Your task to perform on an android device: change the clock style Image 0: 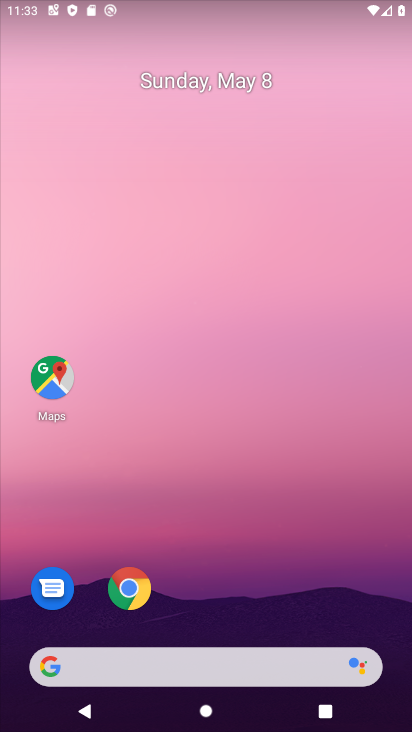
Step 0: drag from (267, 539) to (98, 1)
Your task to perform on an android device: change the clock style Image 1: 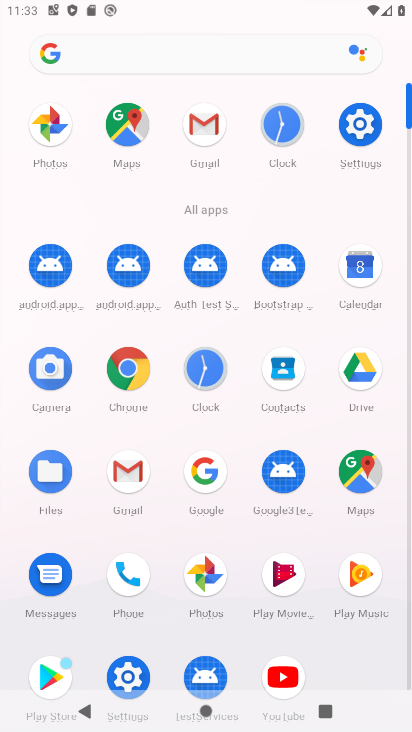
Step 1: click (281, 111)
Your task to perform on an android device: change the clock style Image 2: 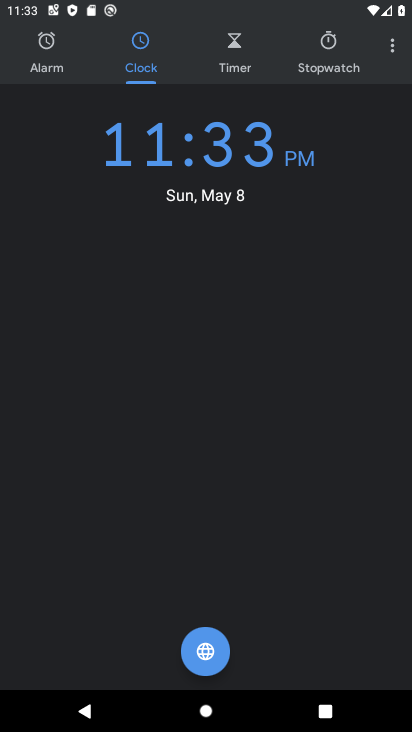
Step 2: click (392, 43)
Your task to perform on an android device: change the clock style Image 3: 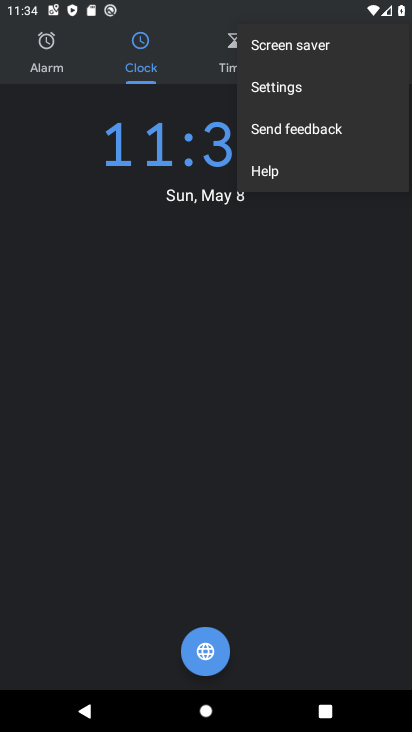
Step 3: click (274, 98)
Your task to perform on an android device: change the clock style Image 4: 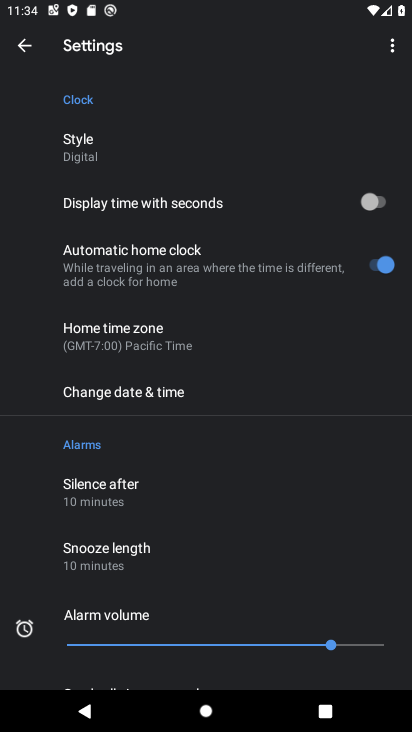
Step 4: click (84, 134)
Your task to perform on an android device: change the clock style Image 5: 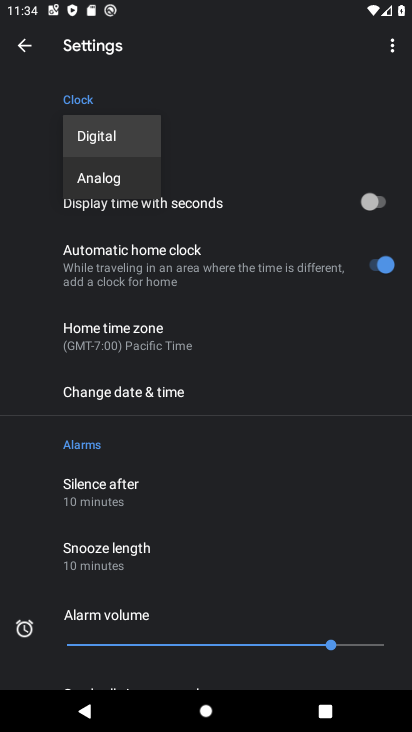
Step 5: click (108, 177)
Your task to perform on an android device: change the clock style Image 6: 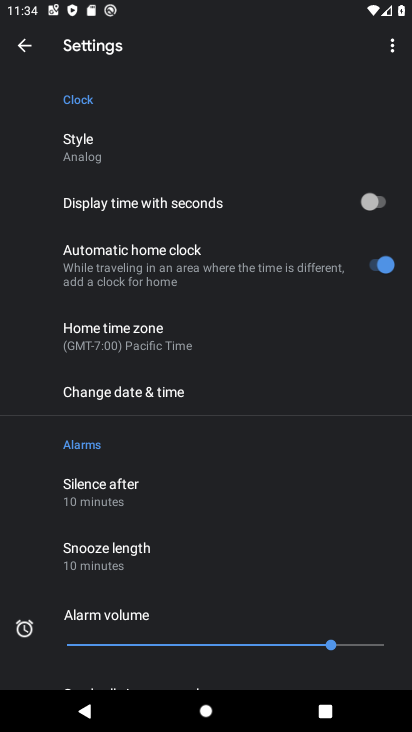
Step 6: task complete